Your task to perform on an android device: Open Google Maps Image 0: 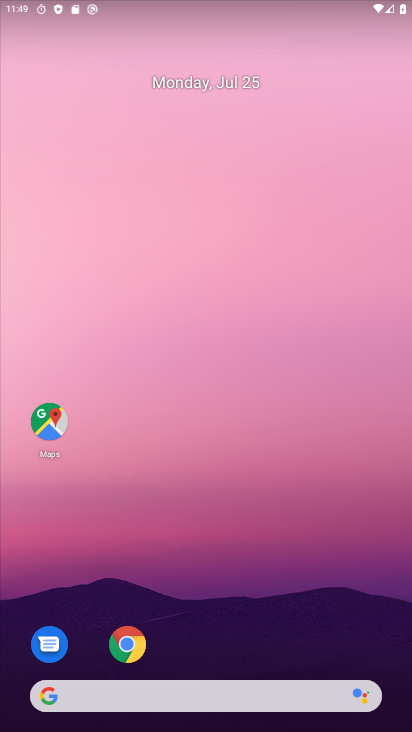
Step 0: drag from (211, 694) to (20, 464)
Your task to perform on an android device: Open Google Maps Image 1: 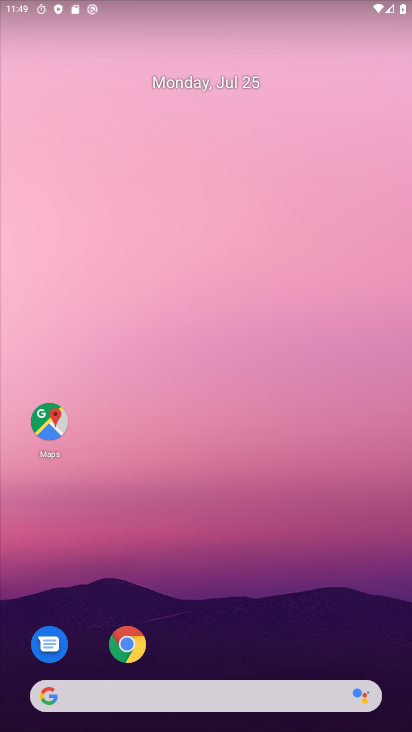
Step 1: drag from (331, 603) to (290, 184)
Your task to perform on an android device: Open Google Maps Image 2: 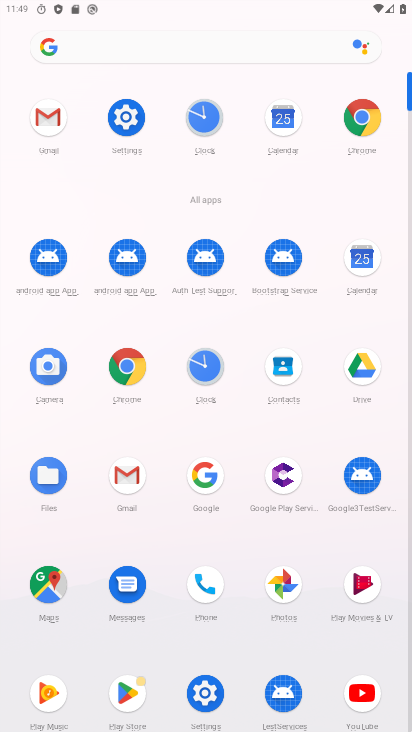
Step 2: click (57, 590)
Your task to perform on an android device: Open Google Maps Image 3: 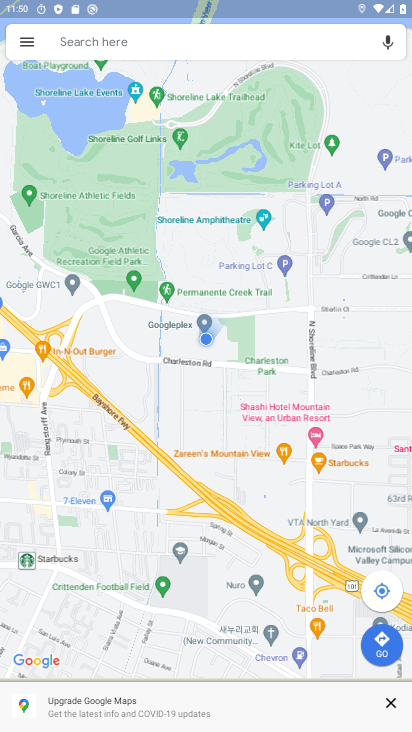
Step 3: task complete